Your task to perform on an android device: Search for "usb-a" on target.com, select the first entry, add it to the cart, then select checkout. Image 0: 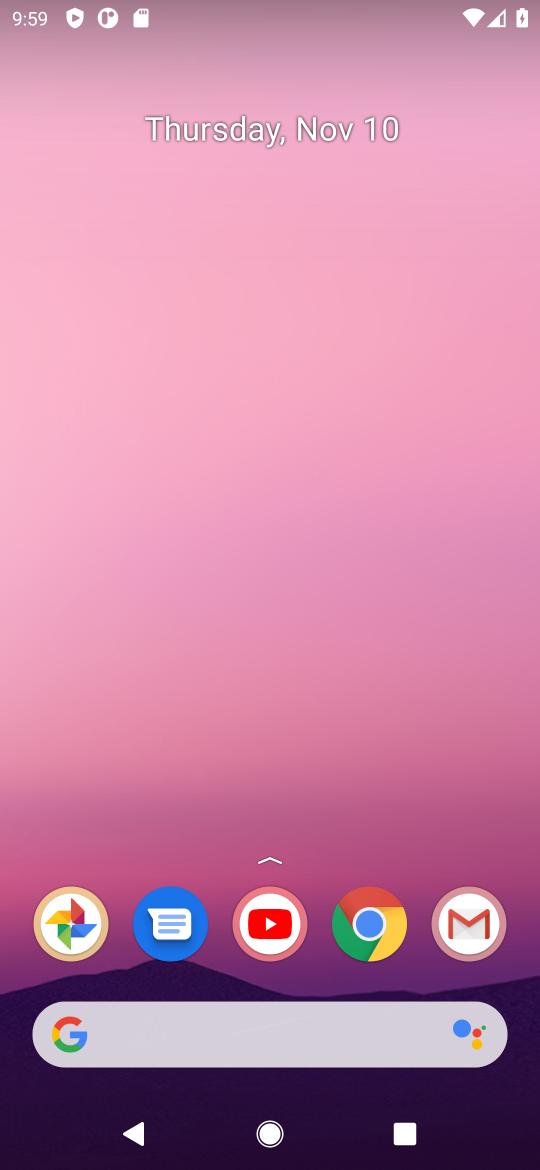
Step 0: click (364, 926)
Your task to perform on an android device: Search for "usb-a" on target.com, select the first entry, add it to the cart, then select checkout. Image 1: 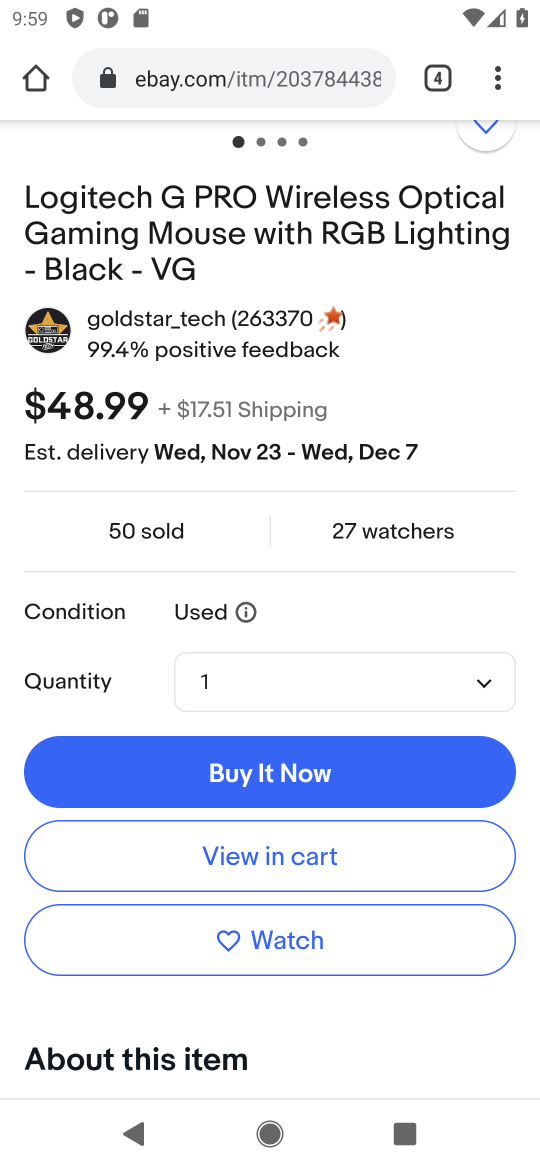
Step 1: click (254, 73)
Your task to perform on an android device: Search for "usb-a" on target.com, select the first entry, add it to the cart, then select checkout. Image 2: 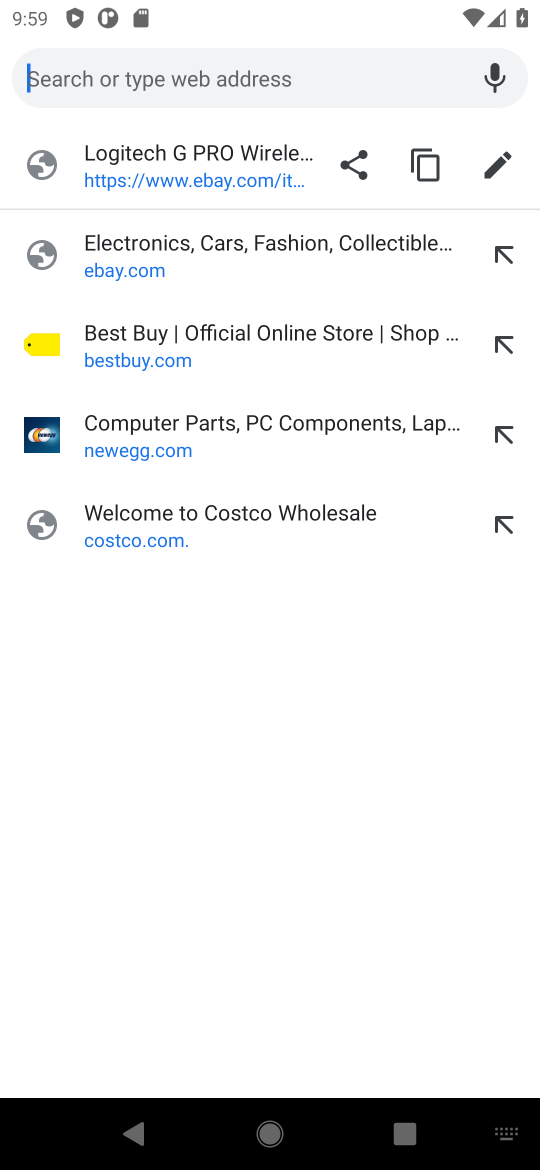
Step 2: type "target.com"
Your task to perform on an android device: Search for "usb-a" on target.com, select the first entry, add it to the cart, then select checkout. Image 3: 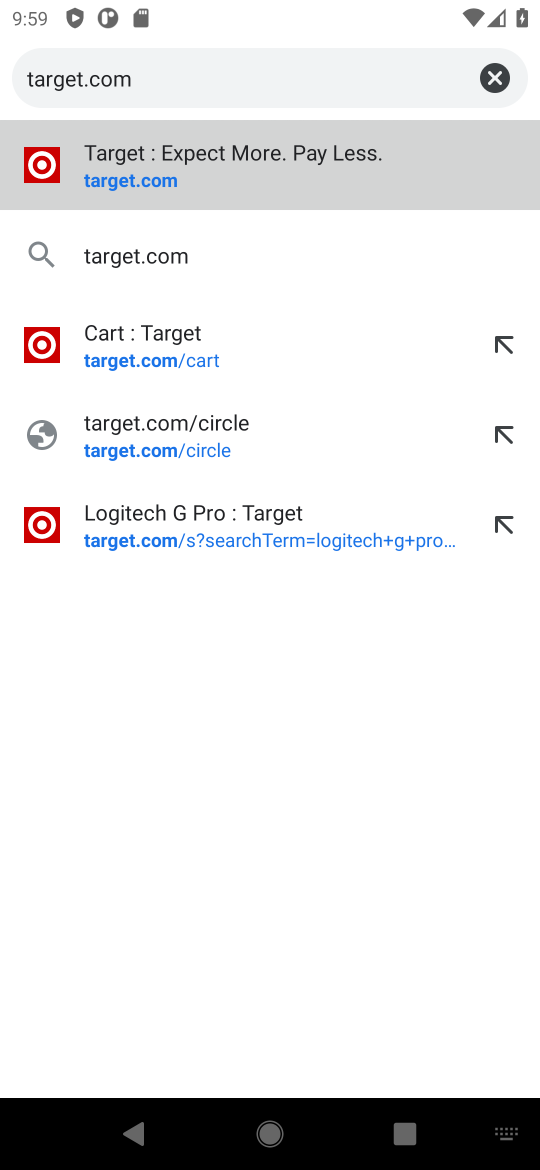
Step 3: click (129, 185)
Your task to perform on an android device: Search for "usb-a" on target.com, select the first entry, add it to the cart, then select checkout. Image 4: 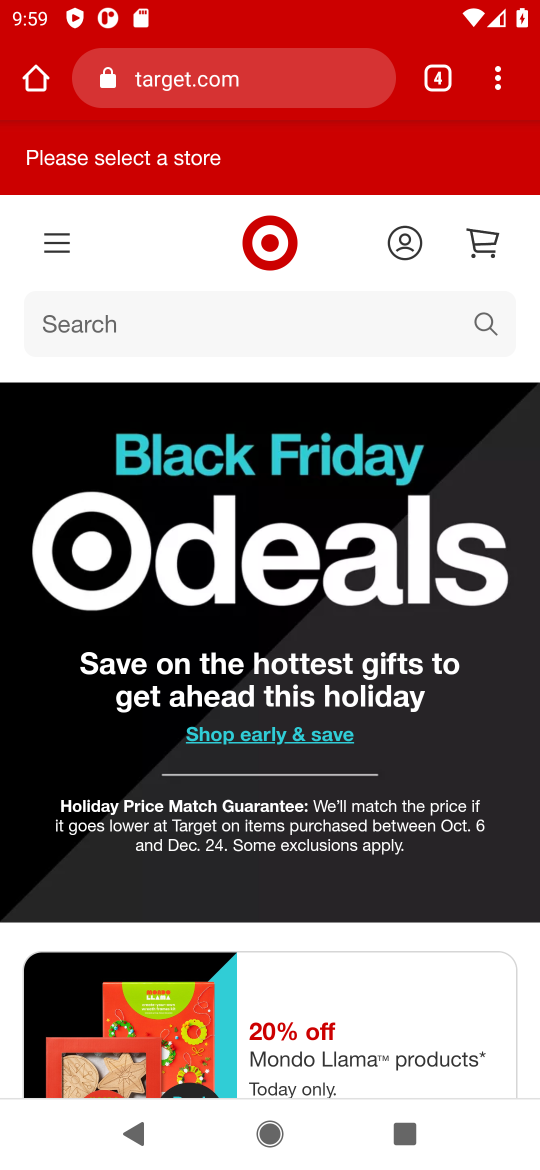
Step 4: click (491, 319)
Your task to perform on an android device: Search for "usb-a" on target.com, select the first entry, add it to the cart, then select checkout. Image 5: 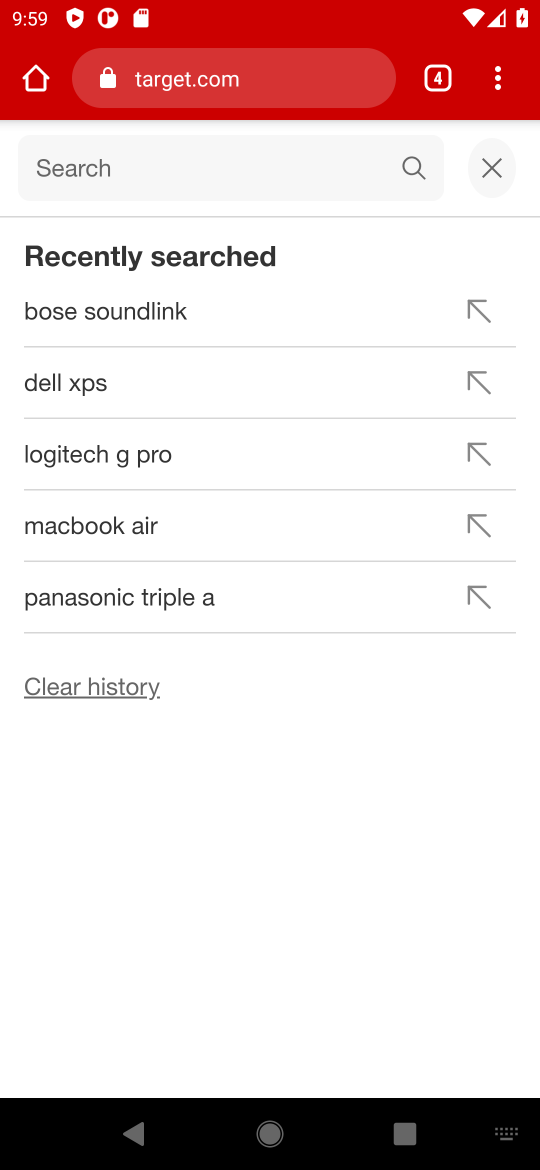
Step 5: type "usb-a"
Your task to perform on an android device: Search for "usb-a" on target.com, select the first entry, add it to the cart, then select checkout. Image 6: 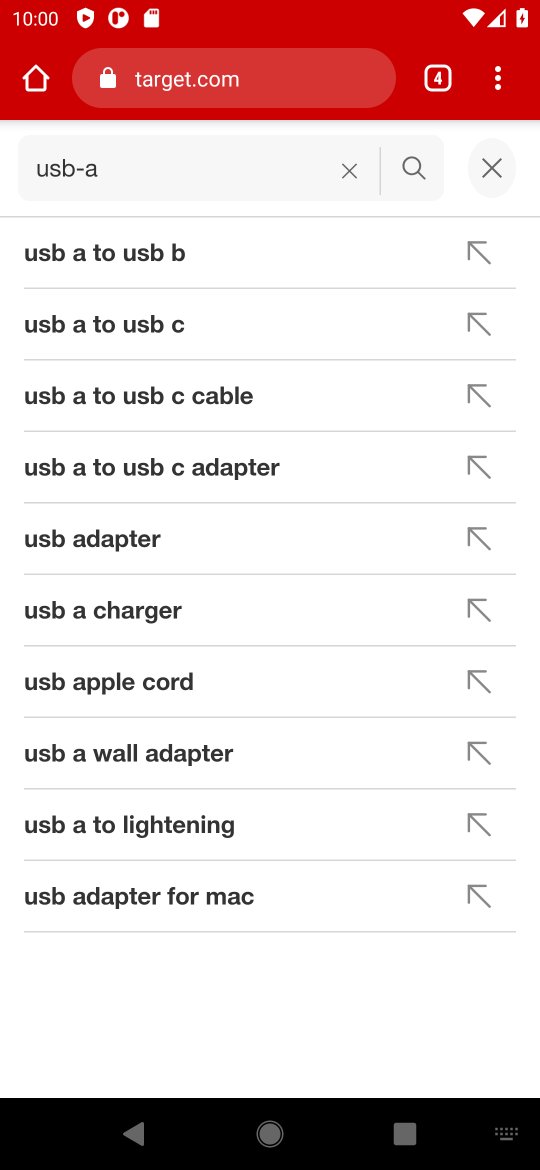
Step 6: click (412, 168)
Your task to perform on an android device: Search for "usb-a" on target.com, select the first entry, add it to the cart, then select checkout. Image 7: 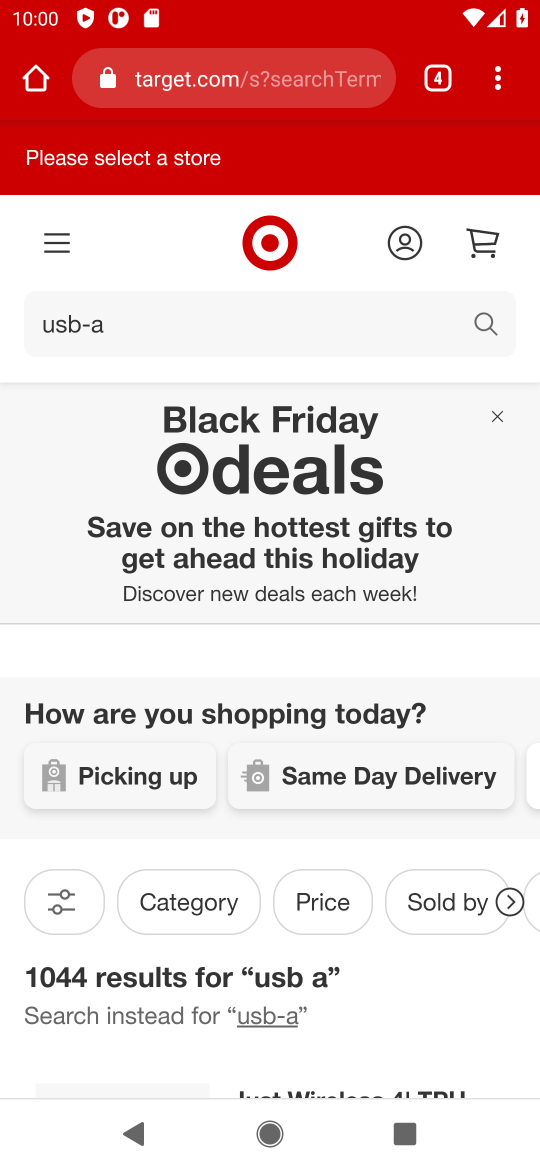
Step 7: drag from (289, 695) to (298, 257)
Your task to perform on an android device: Search for "usb-a" on target.com, select the first entry, add it to the cart, then select checkout. Image 8: 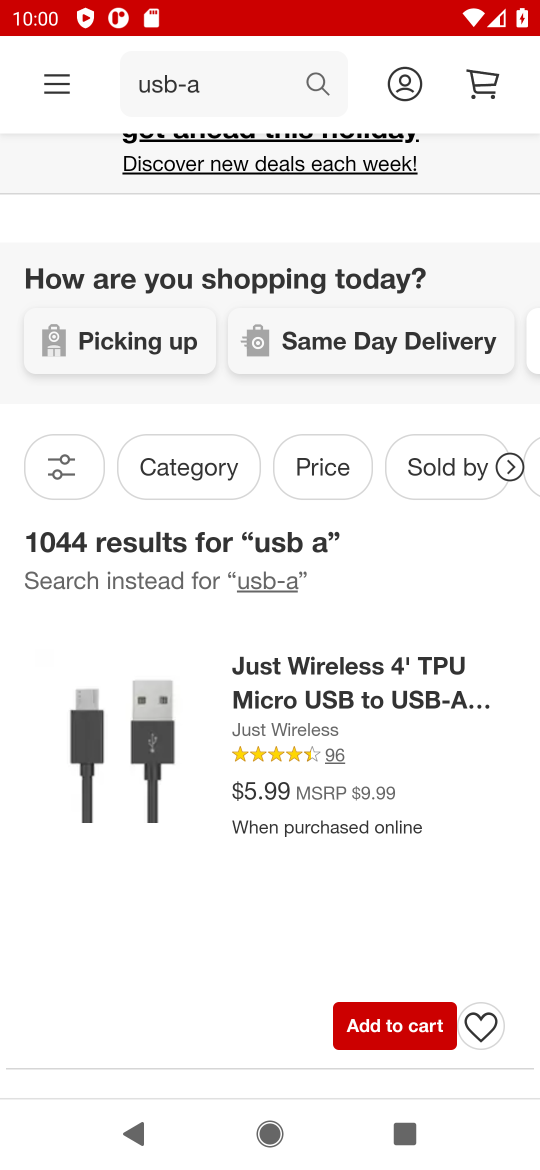
Step 8: click (132, 764)
Your task to perform on an android device: Search for "usb-a" on target.com, select the first entry, add it to the cart, then select checkout. Image 9: 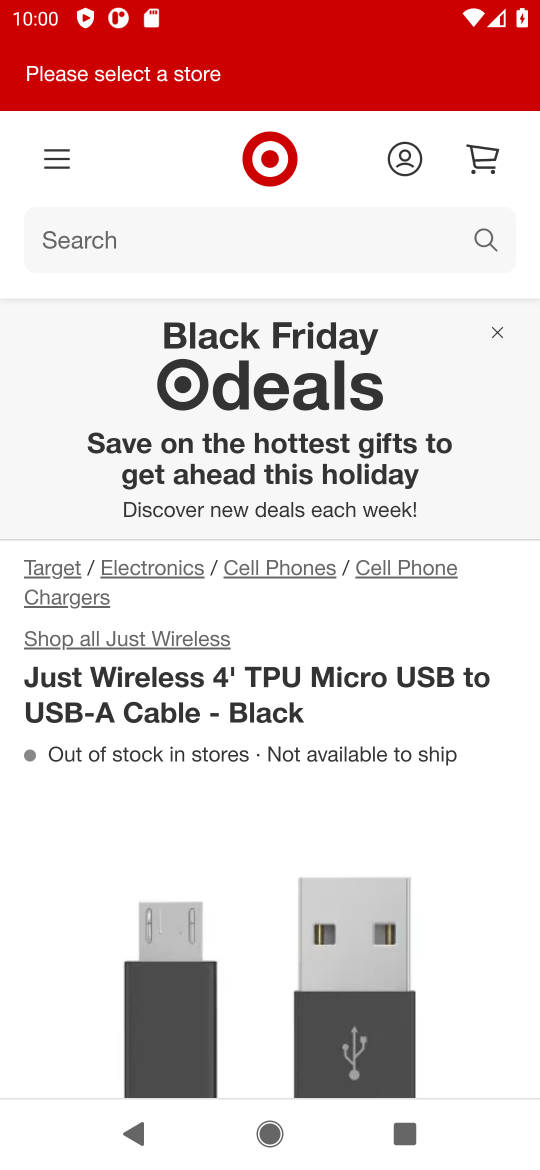
Step 9: drag from (234, 940) to (228, 486)
Your task to perform on an android device: Search for "usb-a" on target.com, select the first entry, add it to the cart, then select checkout. Image 10: 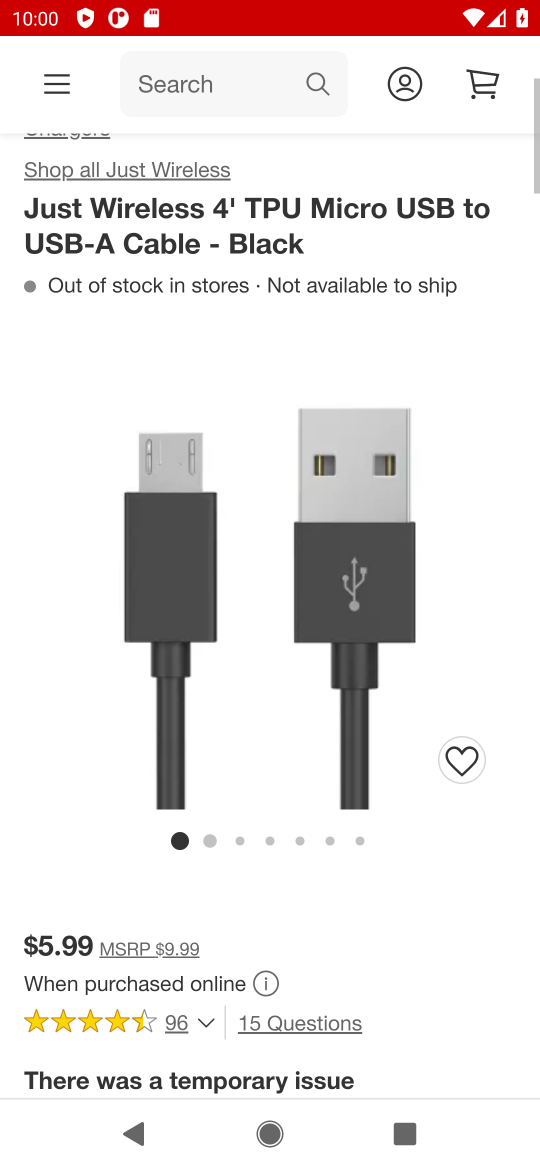
Step 10: drag from (254, 941) to (246, 484)
Your task to perform on an android device: Search for "usb-a" on target.com, select the first entry, add it to the cart, then select checkout. Image 11: 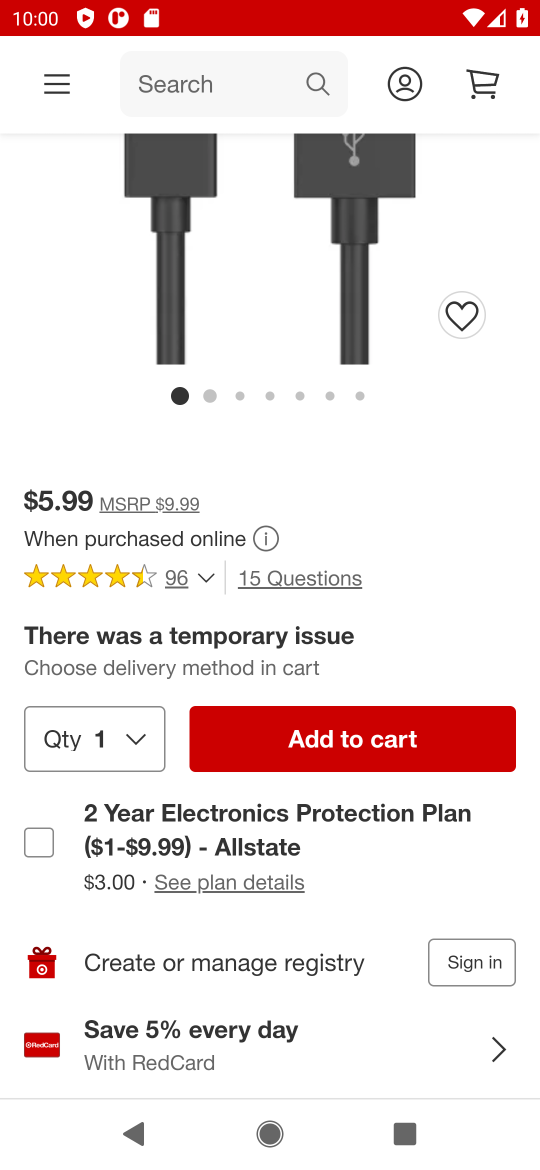
Step 11: click (364, 748)
Your task to perform on an android device: Search for "usb-a" on target.com, select the first entry, add it to the cart, then select checkout. Image 12: 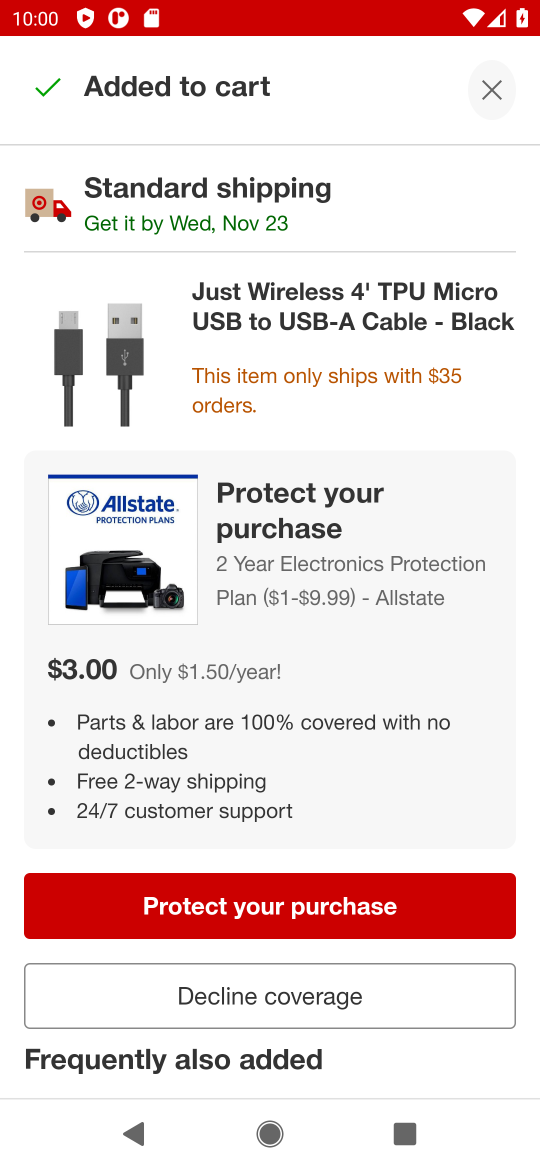
Step 12: click (493, 85)
Your task to perform on an android device: Search for "usb-a" on target.com, select the first entry, add it to the cart, then select checkout. Image 13: 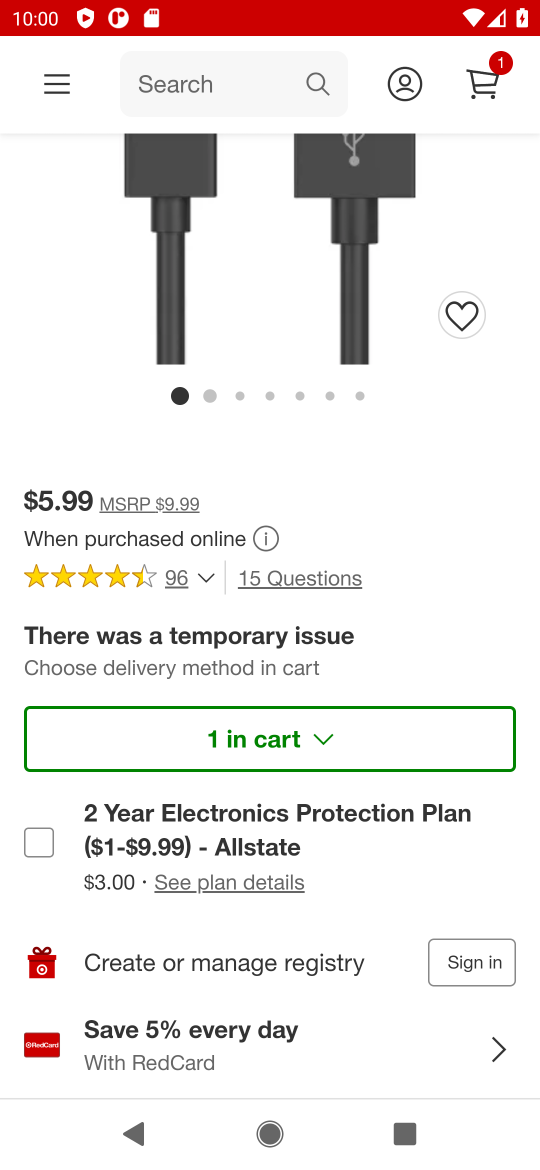
Step 13: click (493, 86)
Your task to perform on an android device: Search for "usb-a" on target.com, select the first entry, add it to the cart, then select checkout. Image 14: 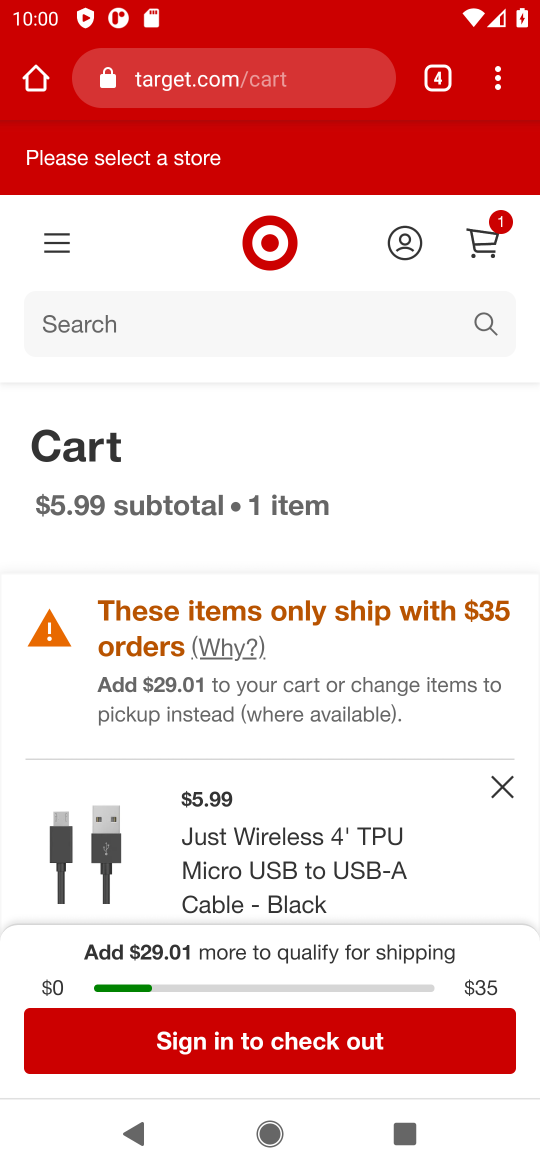
Step 14: click (256, 1043)
Your task to perform on an android device: Search for "usb-a" on target.com, select the first entry, add it to the cart, then select checkout. Image 15: 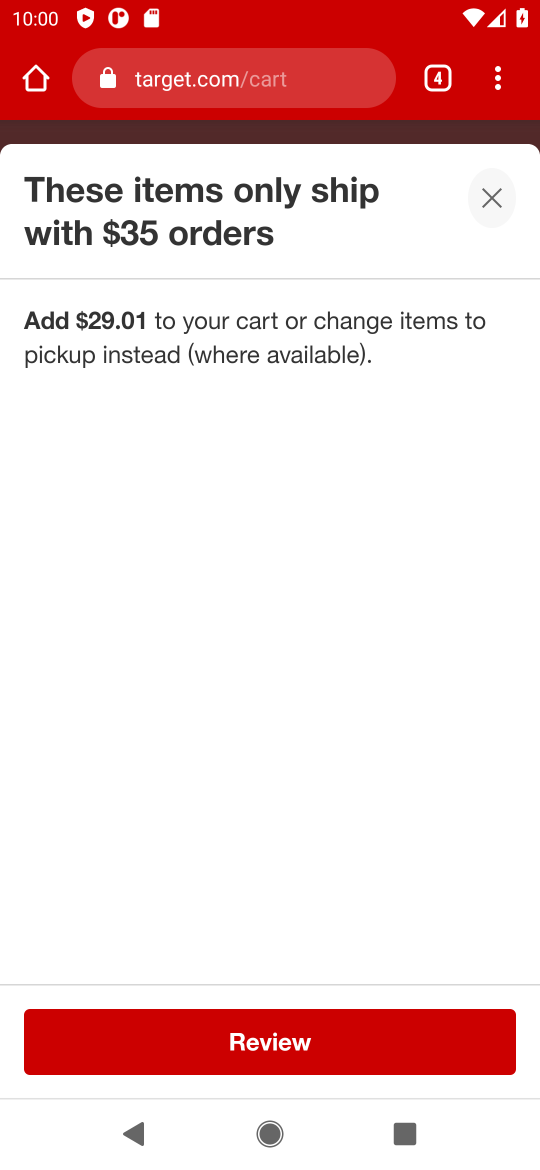
Step 15: task complete